Your task to perform on an android device: Show me the alarms in the clock app Image 0: 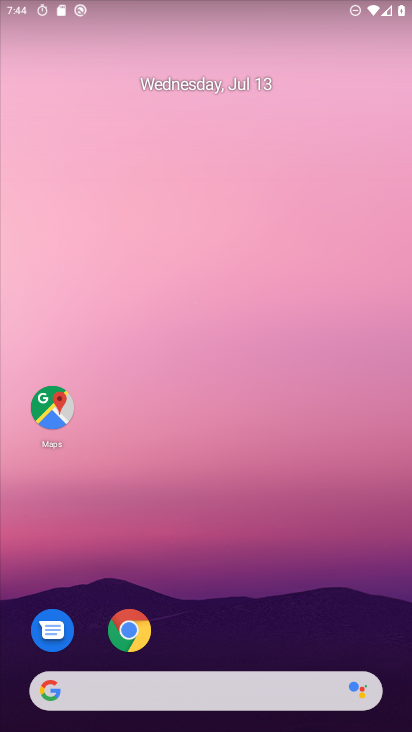
Step 0: drag from (388, 668) to (275, 7)
Your task to perform on an android device: Show me the alarms in the clock app Image 1: 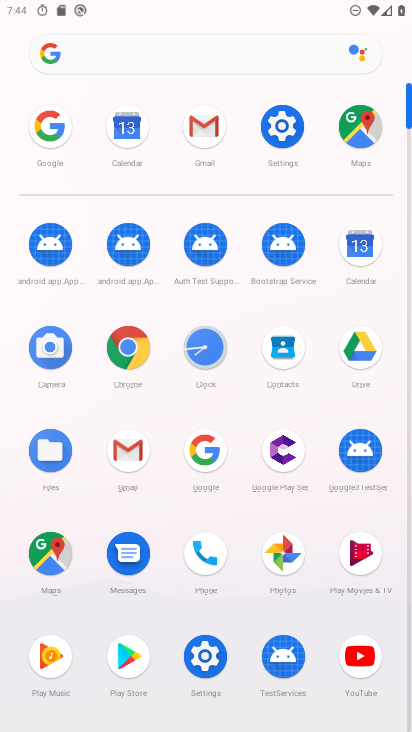
Step 1: click (212, 376)
Your task to perform on an android device: Show me the alarms in the clock app Image 2: 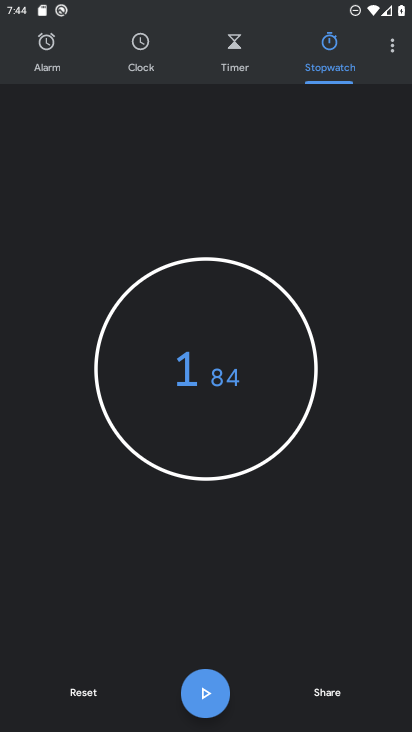
Step 2: click (57, 47)
Your task to perform on an android device: Show me the alarms in the clock app Image 3: 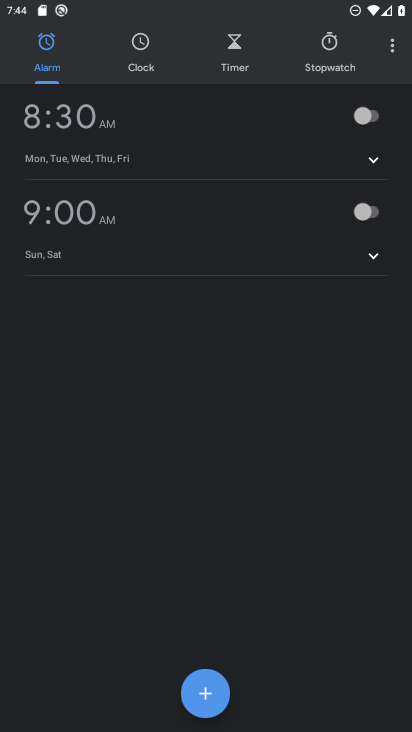
Step 3: task complete